Your task to perform on an android device: Clear the shopping cart on ebay. Image 0: 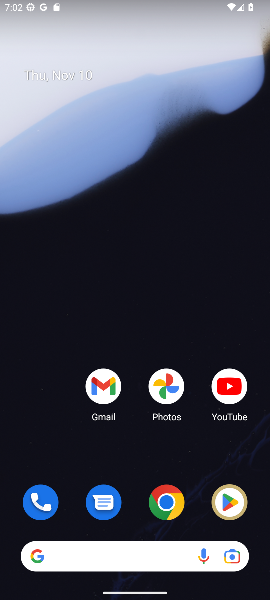
Step 0: click (142, 548)
Your task to perform on an android device: Clear the shopping cart on ebay. Image 1: 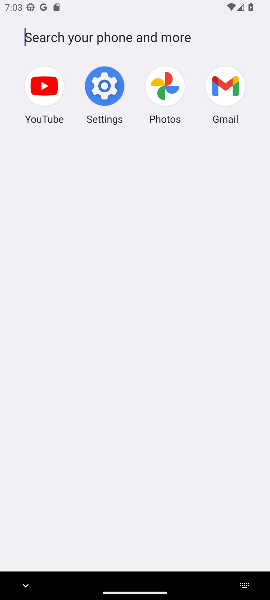
Step 1: press home button
Your task to perform on an android device: Clear the shopping cart on ebay. Image 2: 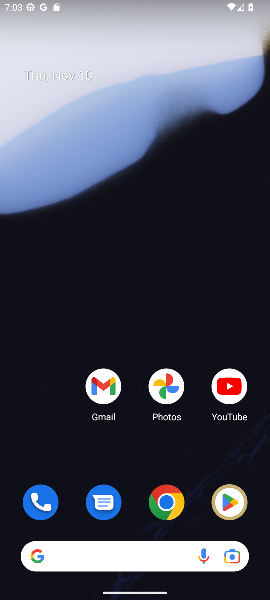
Step 2: drag from (137, 500) to (140, 99)
Your task to perform on an android device: Clear the shopping cart on ebay. Image 3: 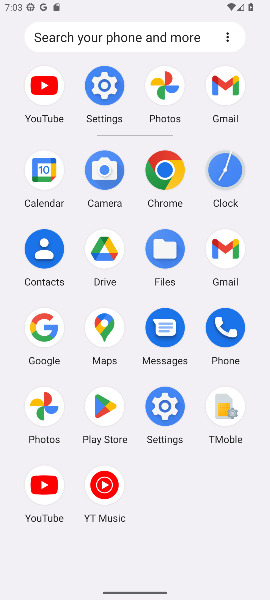
Step 3: click (47, 343)
Your task to perform on an android device: Clear the shopping cart on ebay. Image 4: 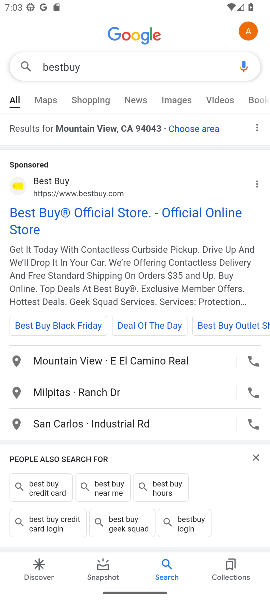
Step 4: click (135, 56)
Your task to perform on an android device: Clear the shopping cart on ebay. Image 5: 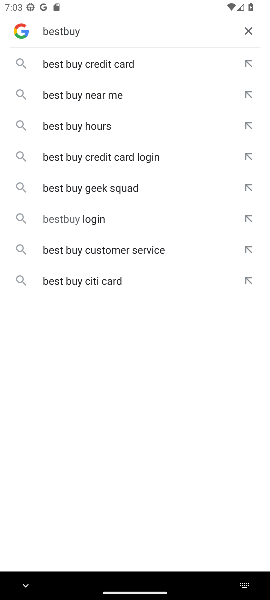
Step 5: click (246, 30)
Your task to perform on an android device: Clear the shopping cart on ebay. Image 6: 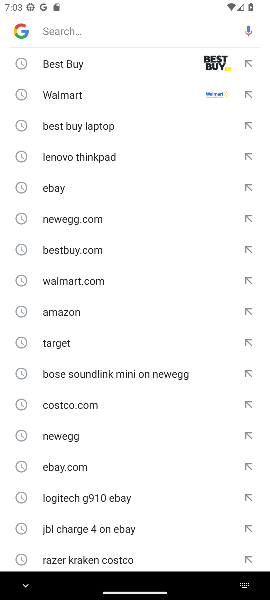
Step 6: type "ebay"
Your task to perform on an android device: Clear the shopping cart on ebay. Image 7: 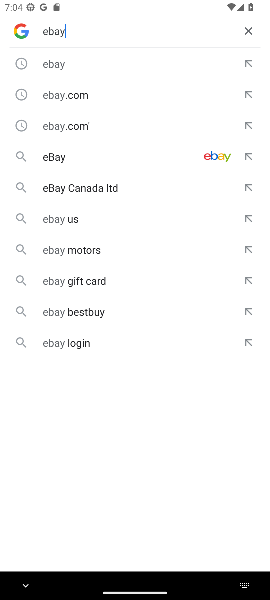
Step 7: click (140, 166)
Your task to perform on an android device: Clear the shopping cart on ebay. Image 8: 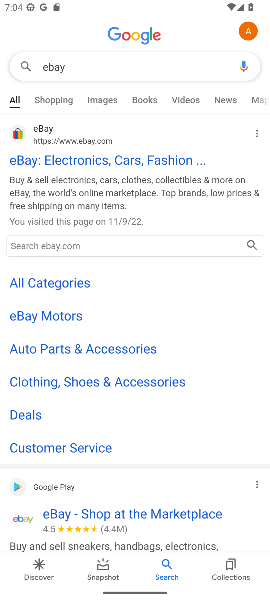
Step 8: click (41, 132)
Your task to perform on an android device: Clear the shopping cart on ebay. Image 9: 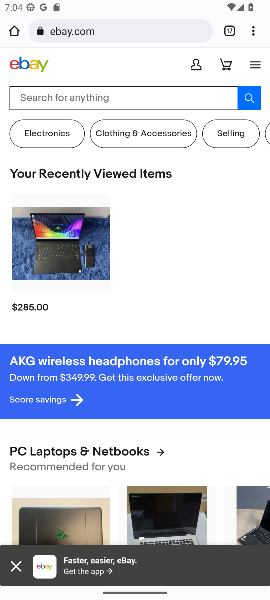
Step 9: click (227, 66)
Your task to perform on an android device: Clear the shopping cart on ebay. Image 10: 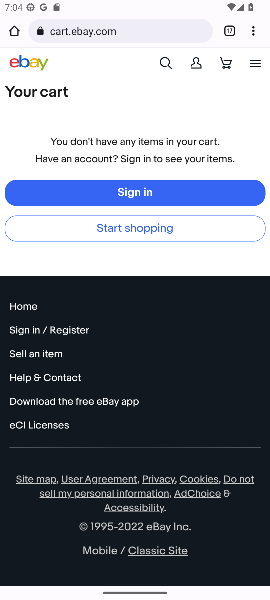
Step 10: task complete